Your task to perform on an android device: turn on data saver in the chrome app Image 0: 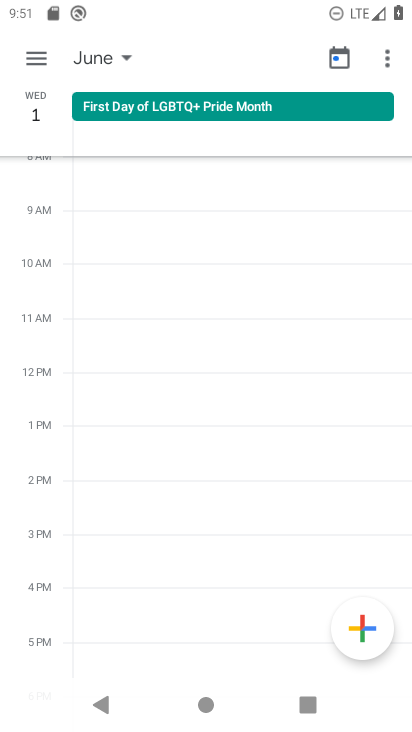
Step 0: press home button
Your task to perform on an android device: turn on data saver in the chrome app Image 1: 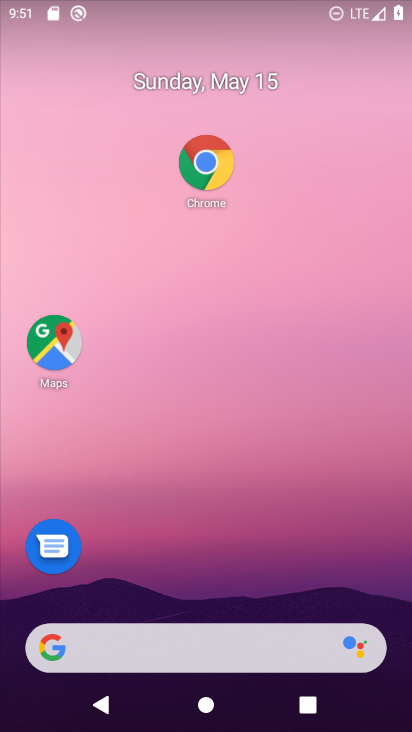
Step 1: drag from (221, 569) to (245, 164)
Your task to perform on an android device: turn on data saver in the chrome app Image 2: 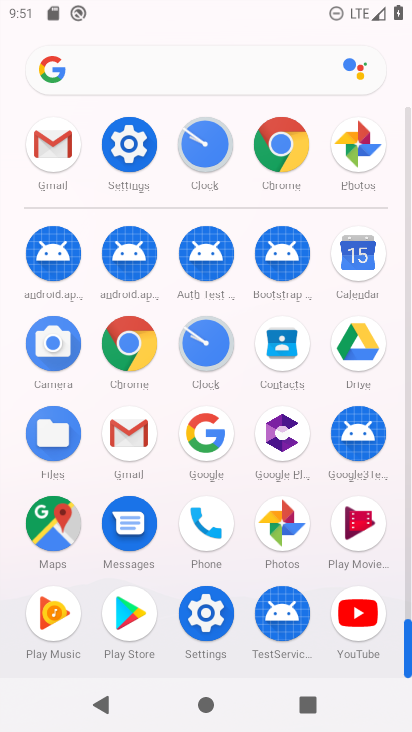
Step 2: click (280, 137)
Your task to perform on an android device: turn on data saver in the chrome app Image 3: 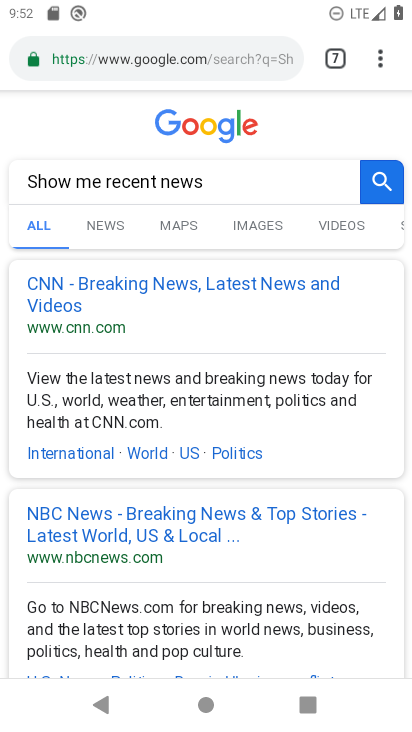
Step 3: click (368, 56)
Your task to perform on an android device: turn on data saver in the chrome app Image 4: 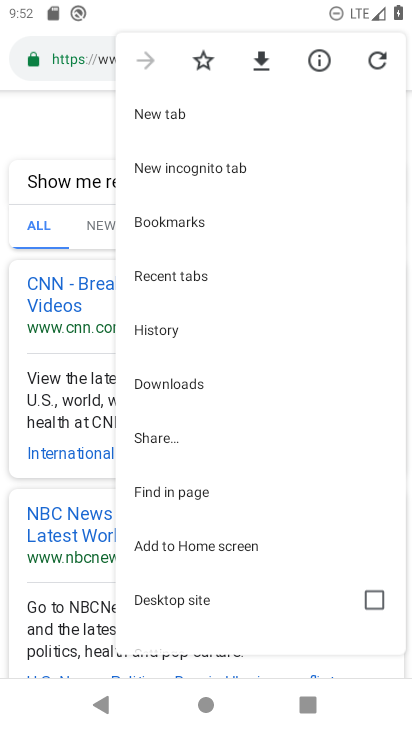
Step 4: drag from (231, 590) to (282, 141)
Your task to perform on an android device: turn on data saver in the chrome app Image 5: 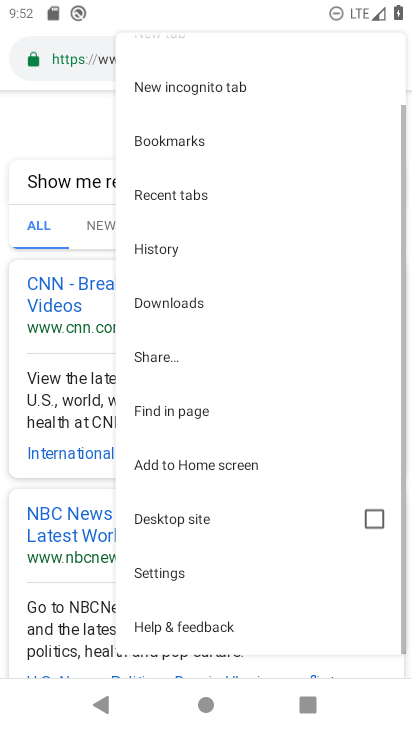
Step 5: drag from (292, 439) to (269, 190)
Your task to perform on an android device: turn on data saver in the chrome app Image 6: 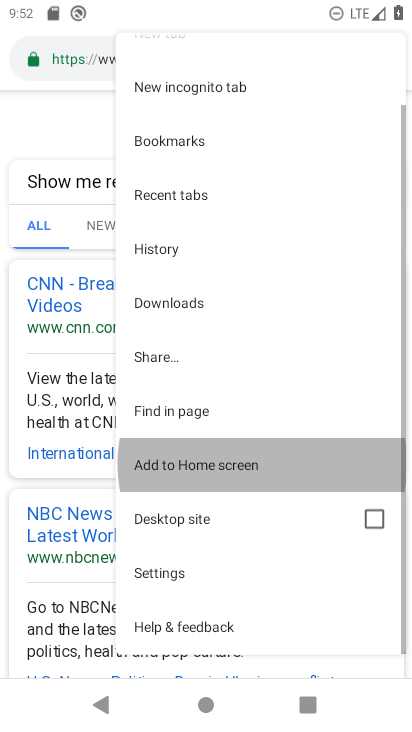
Step 6: drag from (257, 391) to (261, 185)
Your task to perform on an android device: turn on data saver in the chrome app Image 7: 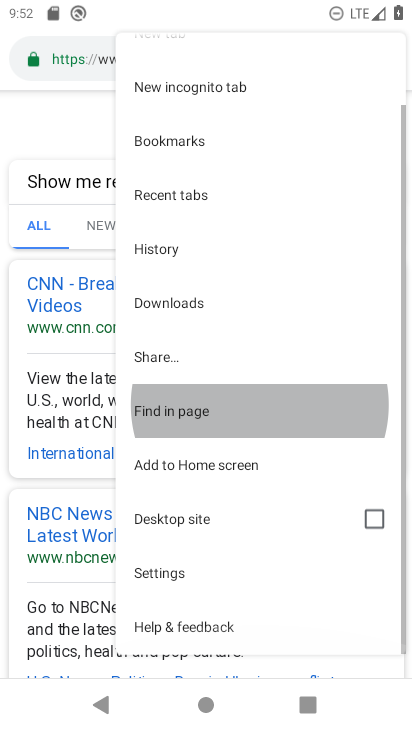
Step 7: drag from (264, 380) to (297, 190)
Your task to perform on an android device: turn on data saver in the chrome app Image 8: 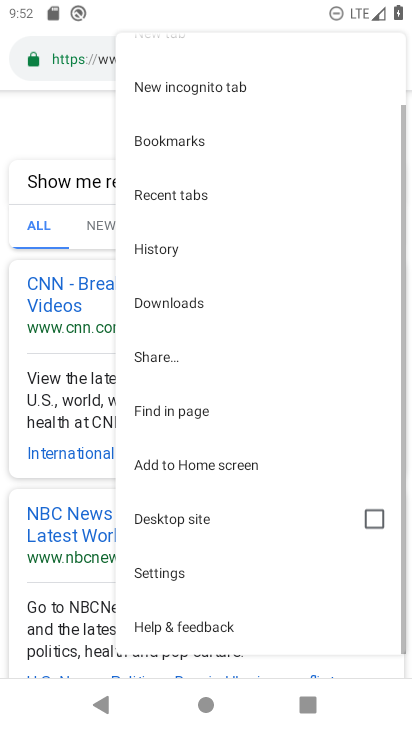
Step 8: drag from (351, 446) to (347, 220)
Your task to perform on an android device: turn on data saver in the chrome app Image 9: 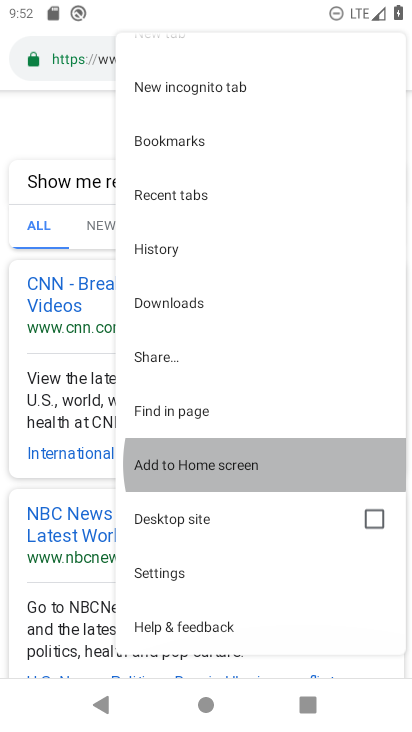
Step 9: drag from (268, 510) to (268, 226)
Your task to perform on an android device: turn on data saver in the chrome app Image 10: 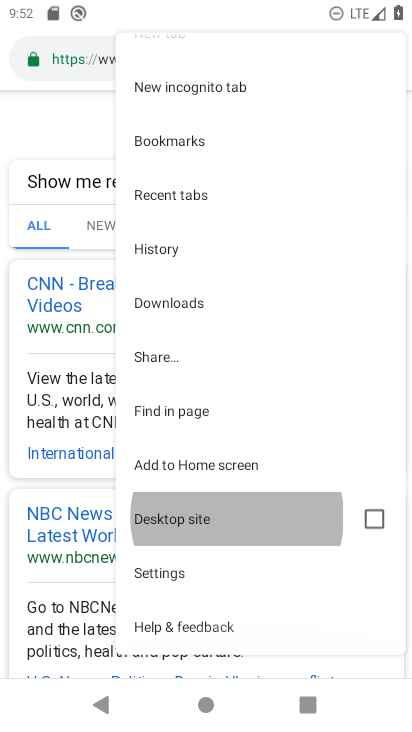
Step 10: drag from (209, 493) to (230, 272)
Your task to perform on an android device: turn on data saver in the chrome app Image 11: 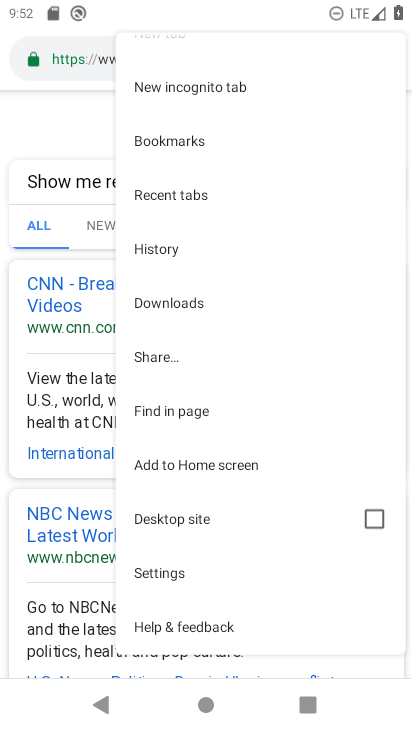
Step 11: click (177, 576)
Your task to perform on an android device: turn on data saver in the chrome app Image 12: 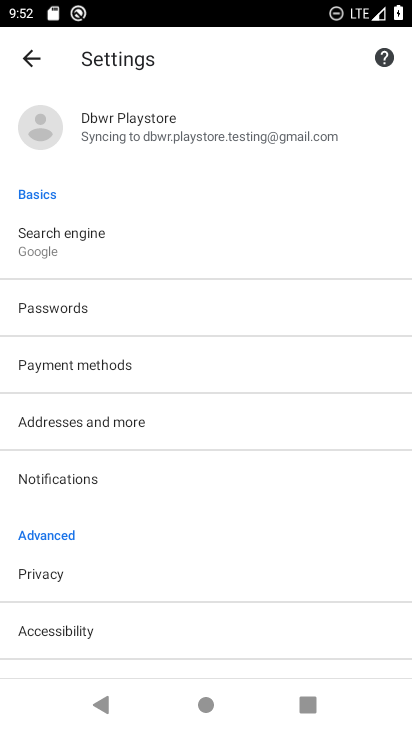
Step 12: drag from (203, 592) to (291, 120)
Your task to perform on an android device: turn on data saver in the chrome app Image 13: 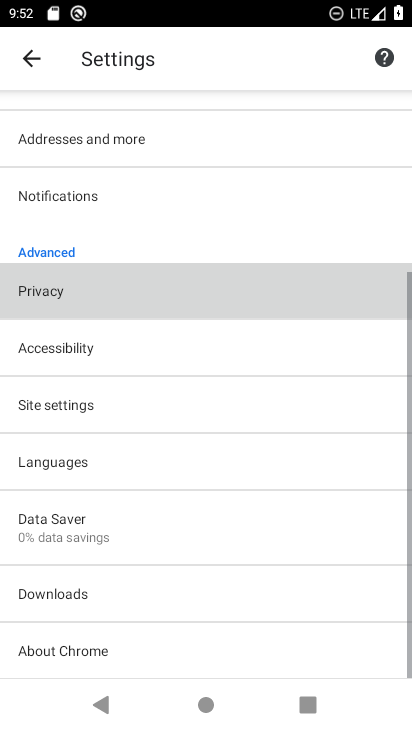
Step 13: drag from (244, 397) to (261, 198)
Your task to perform on an android device: turn on data saver in the chrome app Image 14: 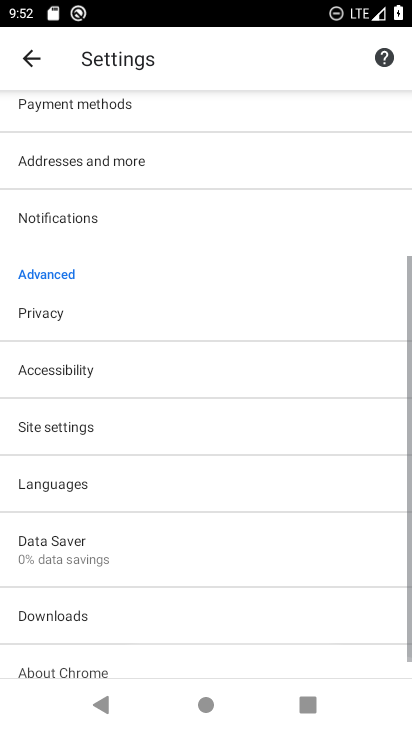
Step 14: drag from (265, 333) to (276, 227)
Your task to perform on an android device: turn on data saver in the chrome app Image 15: 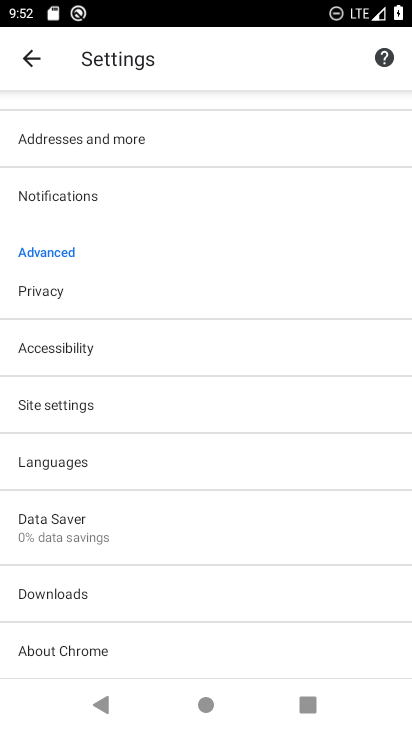
Step 15: click (115, 520)
Your task to perform on an android device: turn on data saver in the chrome app Image 16: 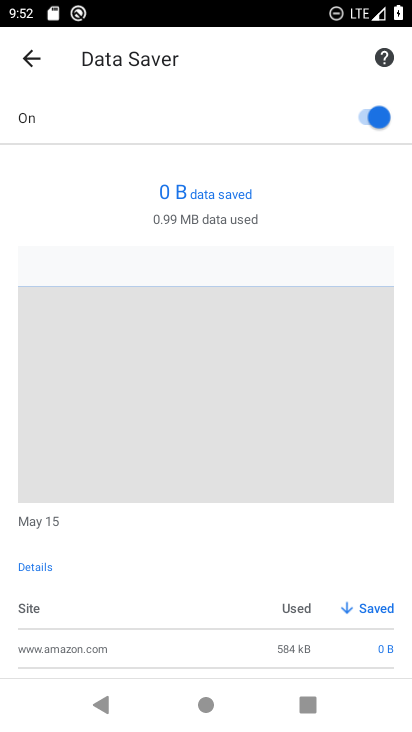
Step 16: task complete